Your task to perform on an android device: empty trash in the gmail app Image 0: 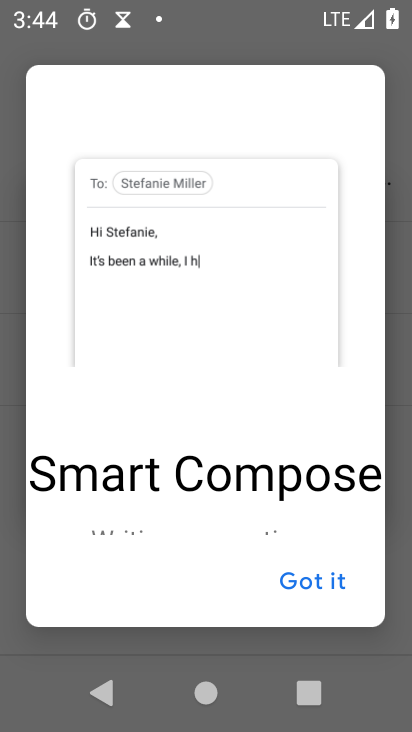
Step 0: press home button
Your task to perform on an android device: empty trash in the gmail app Image 1: 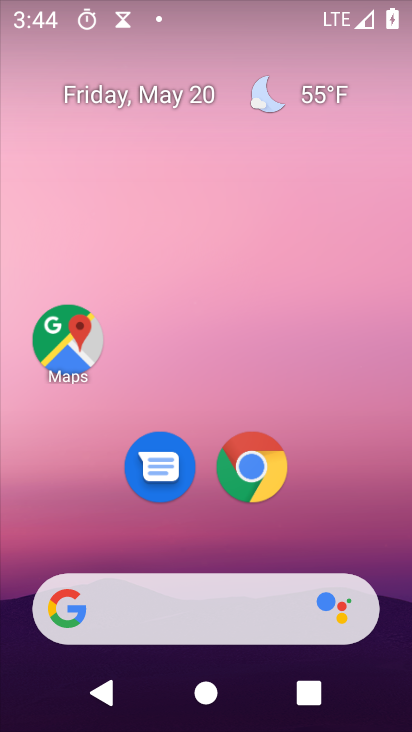
Step 1: drag from (202, 553) to (165, 17)
Your task to perform on an android device: empty trash in the gmail app Image 2: 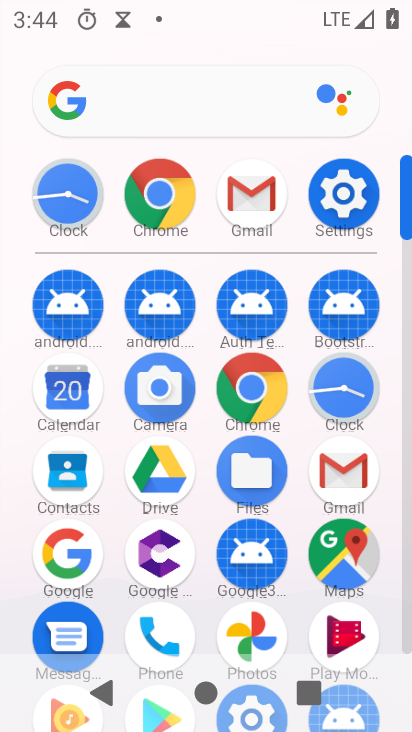
Step 2: click (342, 470)
Your task to perform on an android device: empty trash in the gmail app Image 3: 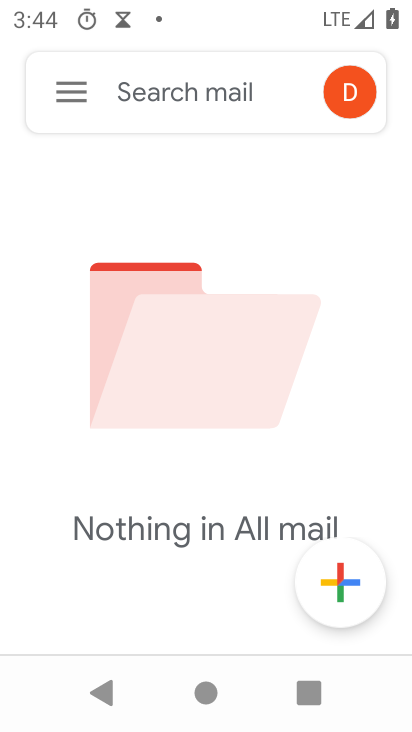
Step 3: click (72, 88)
Your task to perform on an android device: empty trash in the gmail app Image 4: 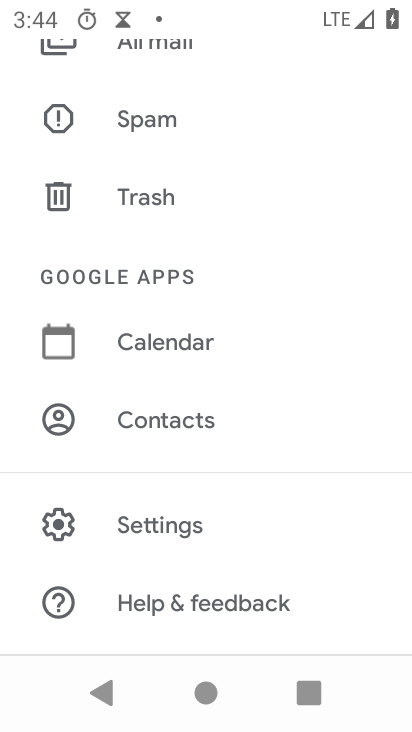
Step 4: click (188, 173)
Your task to perform on an android device: empty trash in the gmail app Image 5: 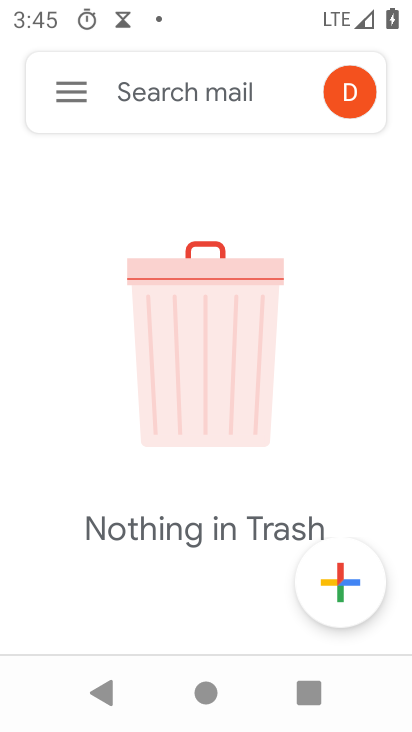
Step 5: task complete